Your task to perform on an android device: turn on data saver in the chrome app Image 0: 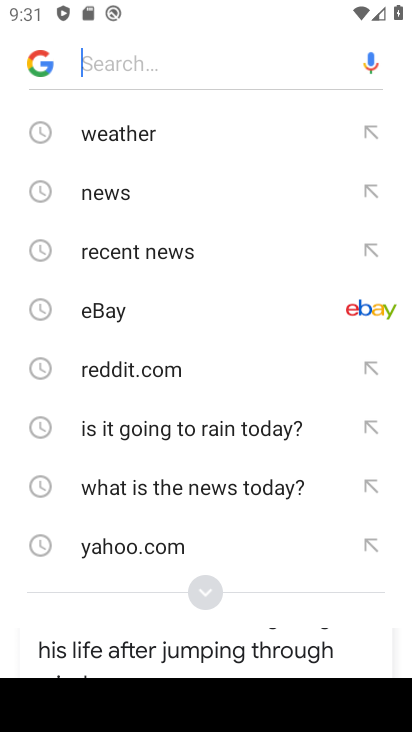
Step 0: press home button
Your task to perform on an android device: turn on data saver in the chrome app Image 1: 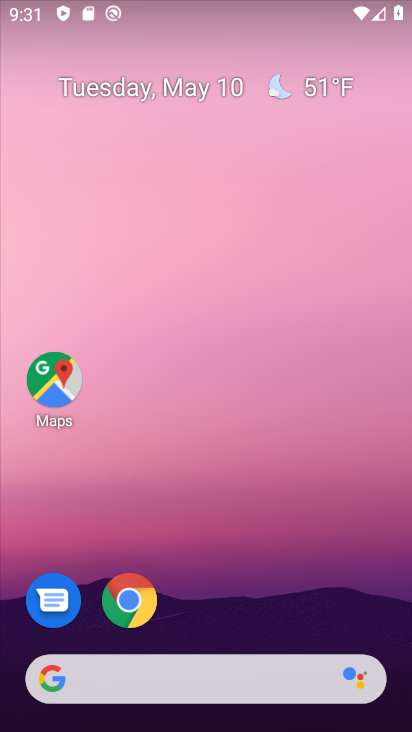
Step 1: click (130, 599)
Your task to perform on an android device: turn on data saver in the chrome app Image 2: 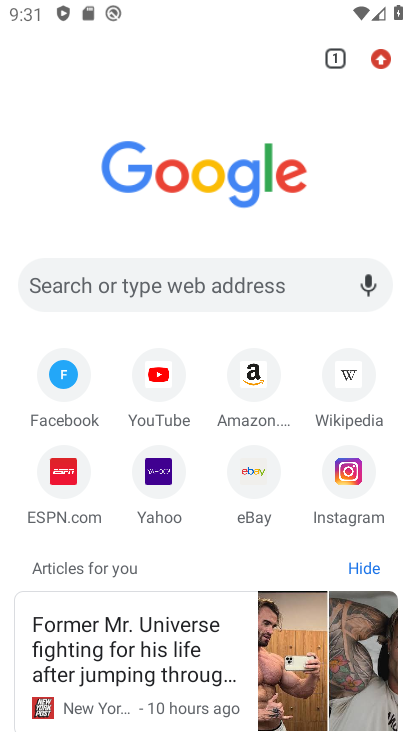
Step 2: click (379, 57)
Your task to perform on an android device: turn on data saver in the chrome app Image 3: 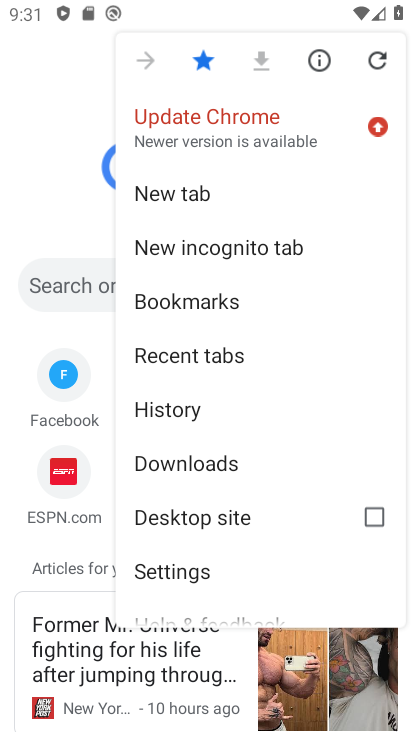
Step 3: click (179, 567)
Your task to perform on an android device: turn on data saver in the chrome app Image 4: 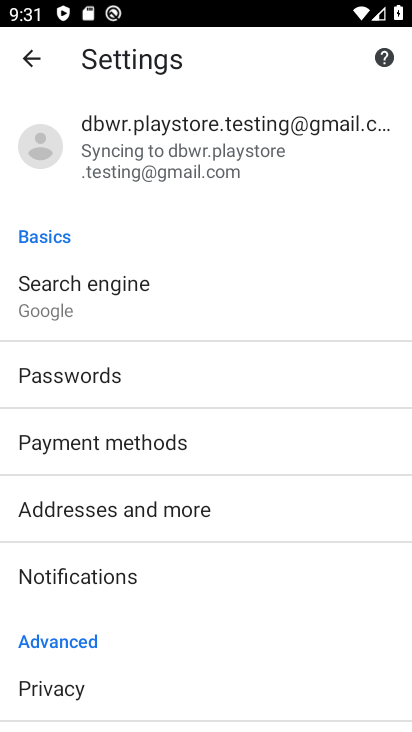
Step 4: drag from (217, 640) to (230, 296)
Your task to perform on an android device: turn on data saver in the chrome app Image 5: 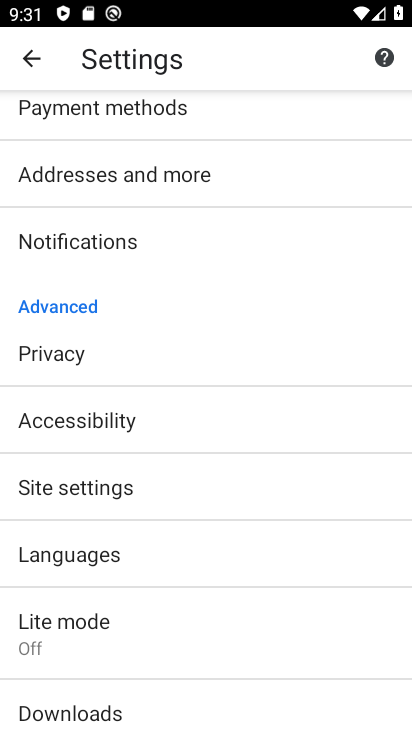
Step 5: click (52, 632)
Your task to perform on an android device: turn on data saver in the chrome app Image 6: 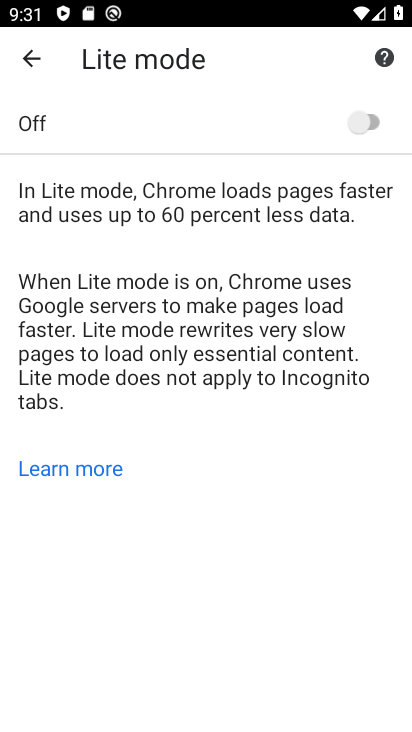
Step 6: click (369, 120)
Your task to perform on an android device: turn on data saver in the chrome app Image 7: 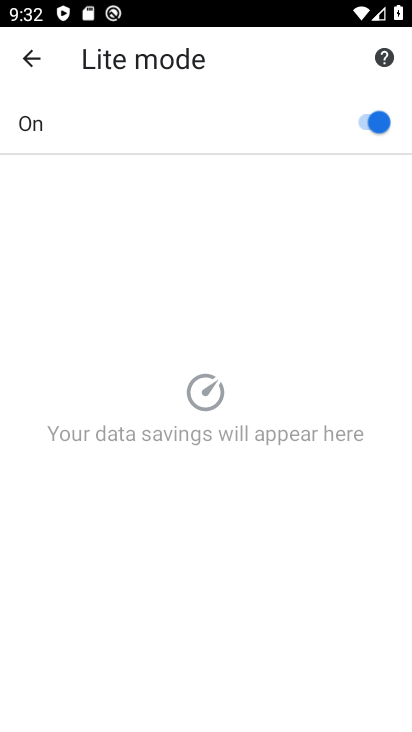
Step 7: task complete